Your task to perform on an android device: Open the calendar and show me this week's events Image 0: 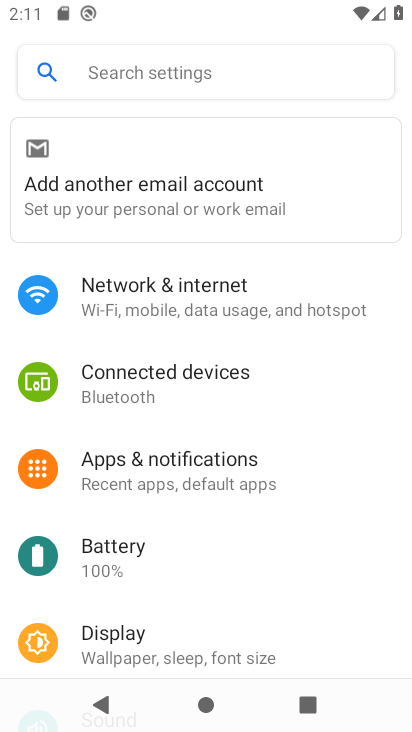
Step 0: press home button
Your task to perform on an android device: Open the calendar and show me this week's events Image 1: 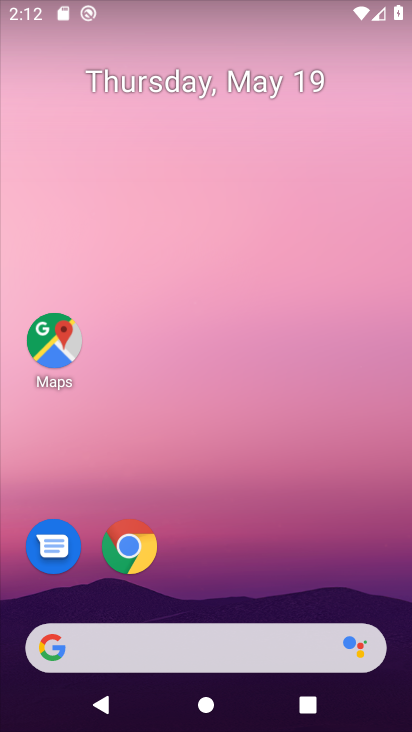
Step 1: drag from (242, 567) to (306, 110)
Your task to perform on an android device: Open the calendar and show me this week's events Image 2: 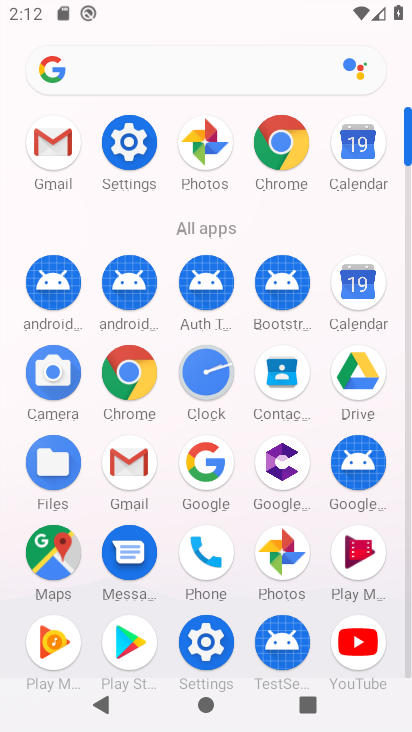
Step 2: click (359, 275)
Your task to perform on an android device: Open the calendar and show me this week's events Image 3: 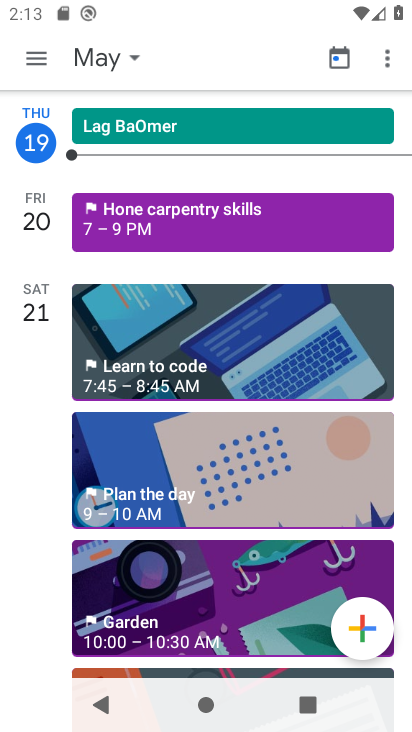
Step 3: drag from (34, 483) to (55, 330)
Your task to perform on an android device: Open the calendar and show me this week's events Image 4: 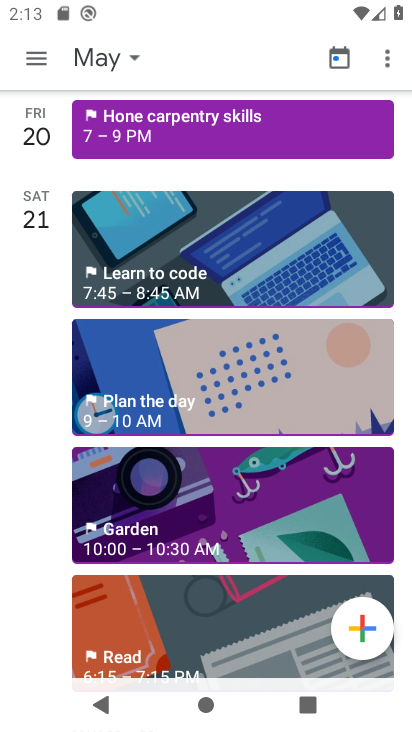
Step 4: click (58, 310)
Your task to perform on an android device: Open the calendar and show me this week's events Image 5: 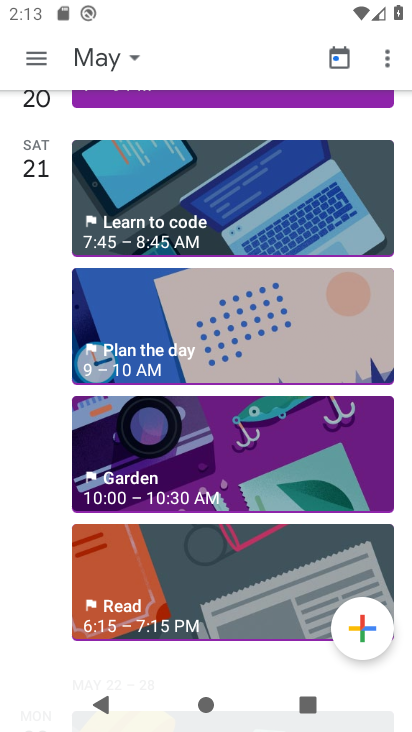
Step 5: task complete